Your task to perform on an android device: choose inbox layout in the gmail app Image 0: 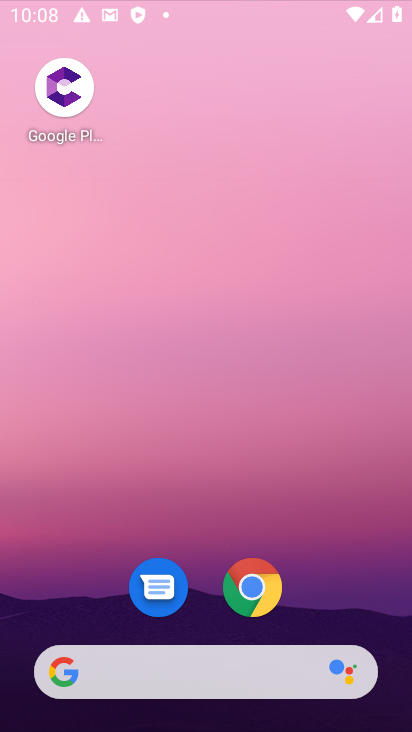
Step 0: drag from (201, 15) to (198, 135)
Your task to perform on an android device: choose inbox layout in the gmail app Image 1: 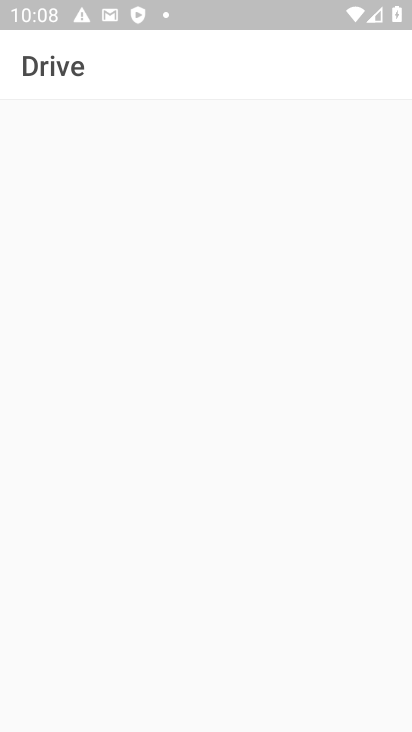
Step 1: press home button
Your task to perform on an android device: choose inbox layout in the gmail app Image 2: 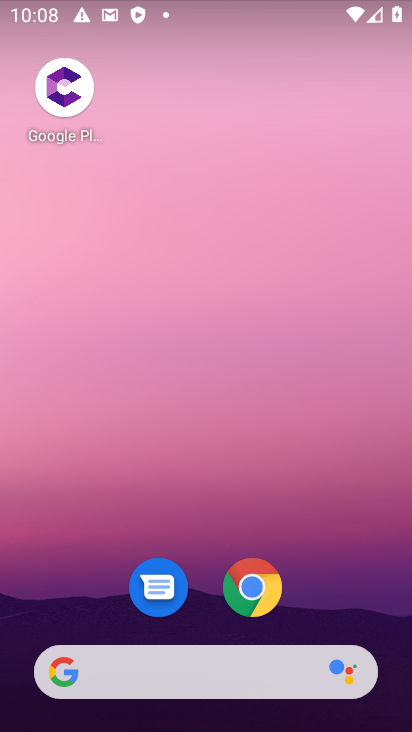
Step 2: drag from (196, 628) to (192, 184)
Your task to perform on an android device: choose inbox layout in the gmail app Image 3: 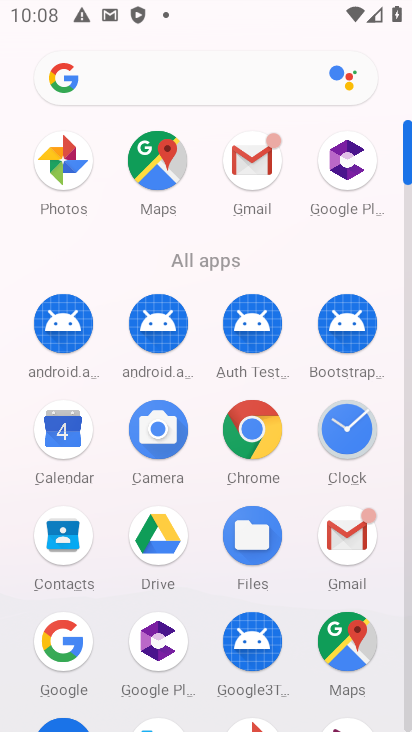
Step 3: click (347, 532)
Your task to perform on an android device: choose inbox layout in the gmail app Image 4: 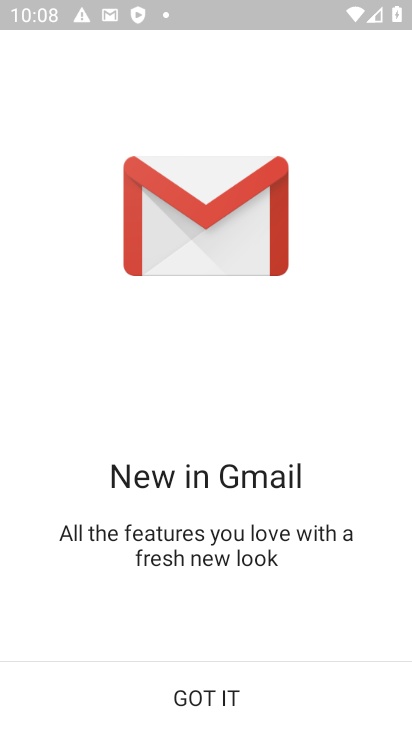
Step 4: click (203, 688)
Your task to perform on an android device: choose inbox layout in the gmail app Image 5: 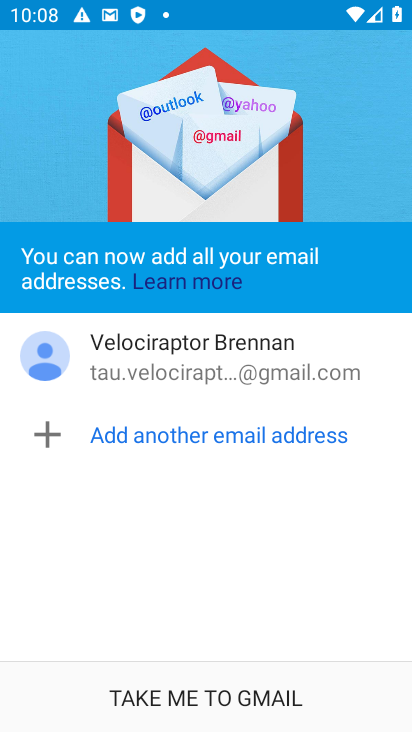
Step 5: click (165, 699)
Your task to perform on an android device: choose inbox layout in the gmail app Image 6: 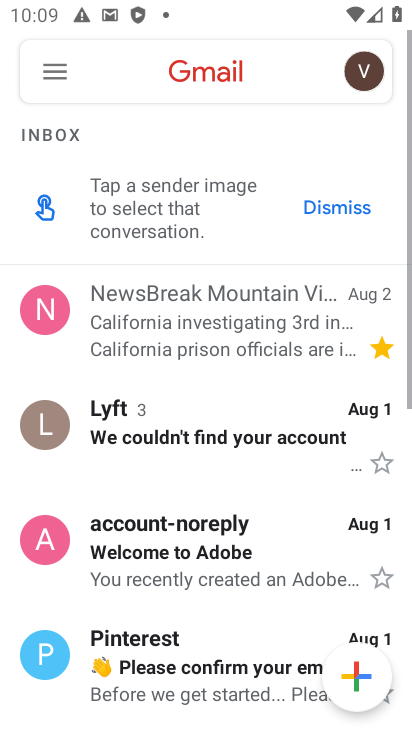
Step 6: click (59, 63)
Your task to perform on an android device: choose inbox layout in the gmail app Image 7: 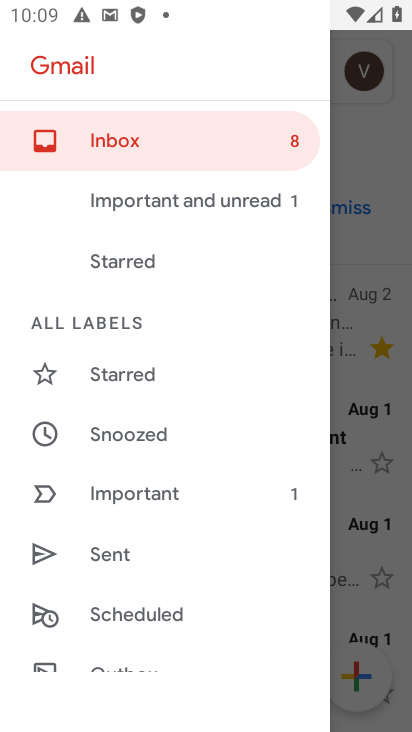
Step 7: drag from (83, 653) to (203, 173)
Your task to perform on an android device: choose inbox layout in the gmail app Image 8: 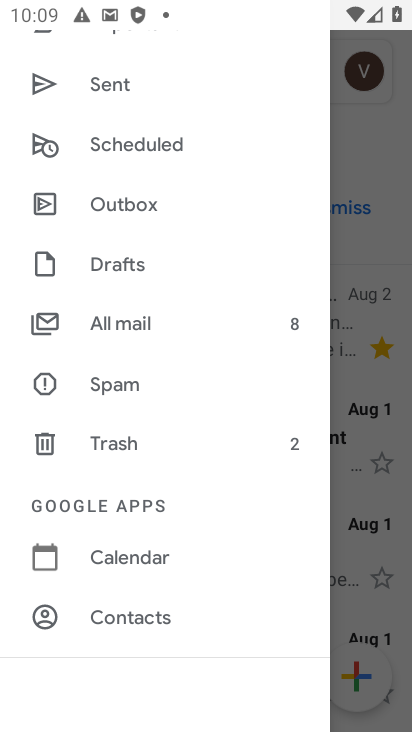
Step 8: drag from (136, 646) to (271, 112)
Your task to perform on an android device: choose inbox layout in the gmail app Image 9: 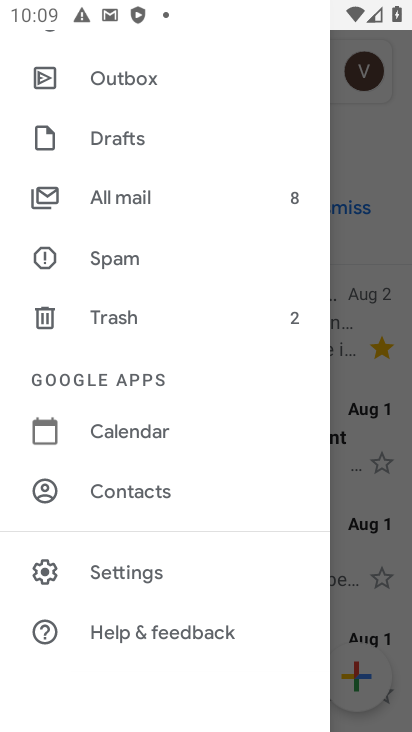
Step 9: click (113, 561)
Your task to perform on an android device: choose inbox layout in the gmail app Image 10: 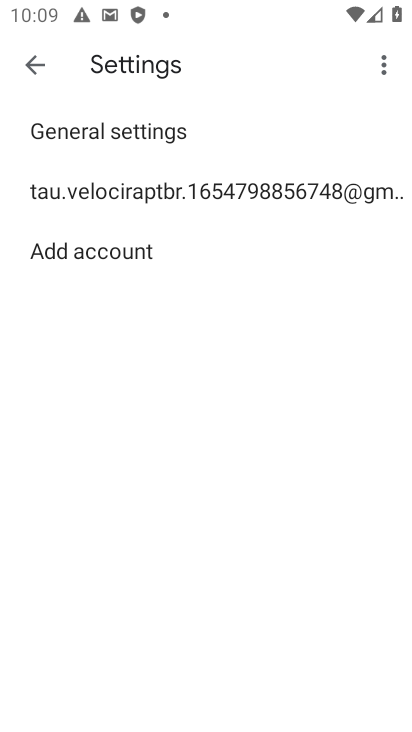
Step 10: click (143, 177)
Your task to perform on an android device: choose inbox layout in the gmail app Image 11: 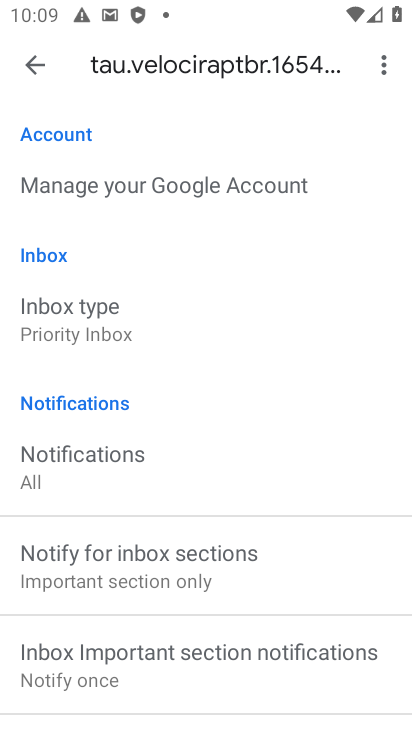
Step 11: click (48, 333)
Your task to perform on an android device: choose inbox layout in the gmail app Image 12: 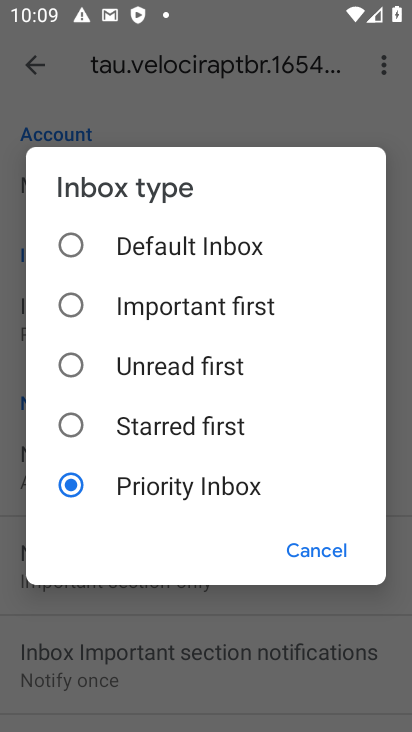
Step 12: click (153, 264)
Your task to perform on an android device: choose inbox layout in the gmail app Image 13: 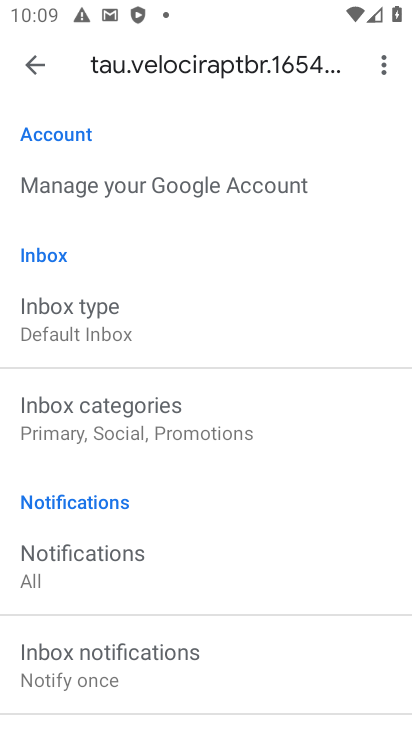
Step 13: task complete